Your task to perform on an android device: clear history in the chrome app Image 0: 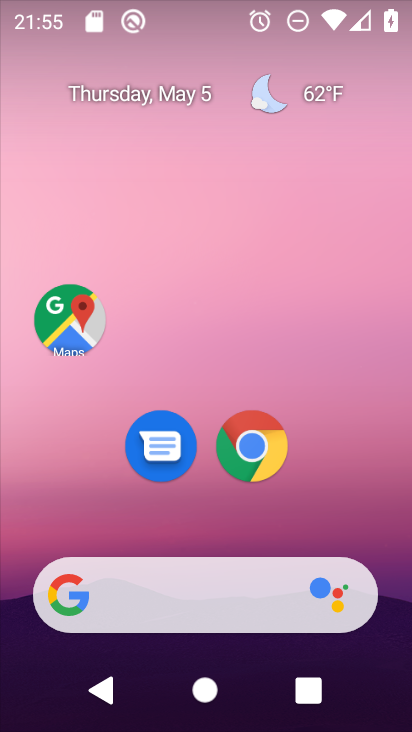
Step 0: drag from (264, 641) to (291, 173)
Your task to perform on an android device: clear history in the chrome app Image 1: 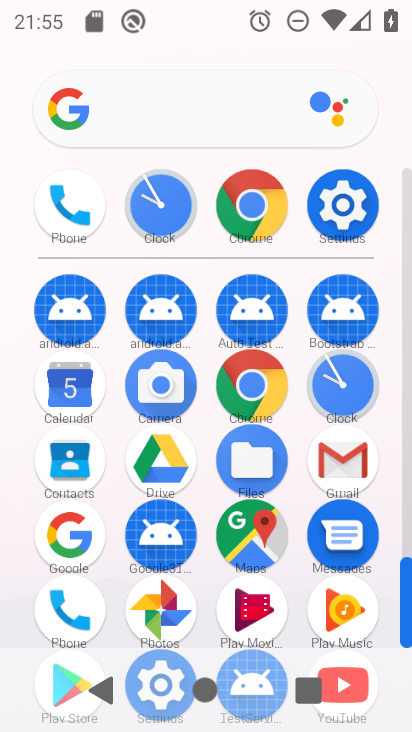
Step 1: click (255, 200)
Your task to perform on an android device: clear history in the chrome app Image 2: 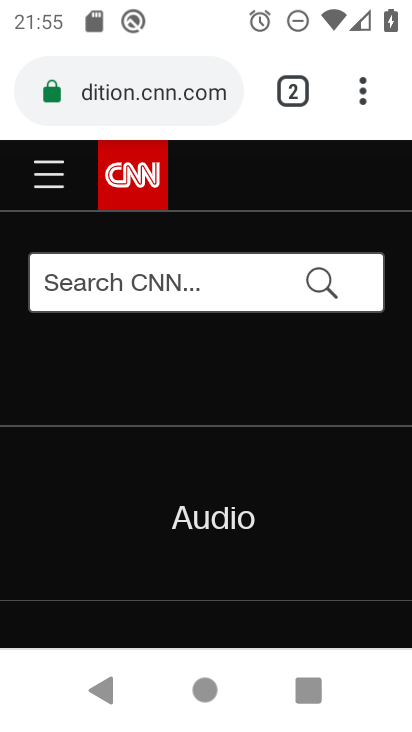
Step 2: click (355, 111)
Your task to perform on an android device: clear history in the chrome app Image 3: 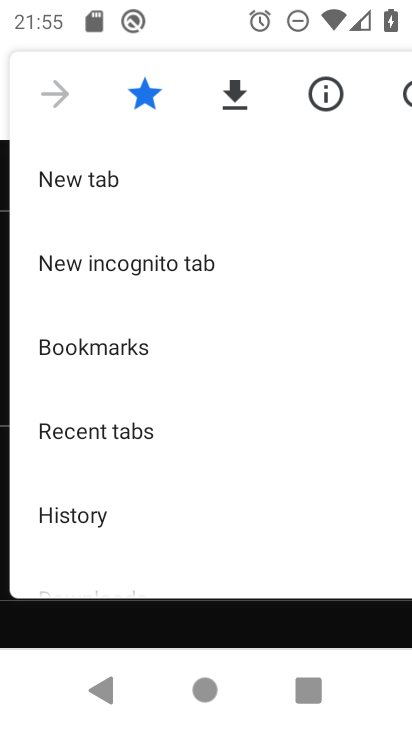
Step 3: click (103, 525)
Your task to perform on an android device: clear history in the chrome app Image 4: 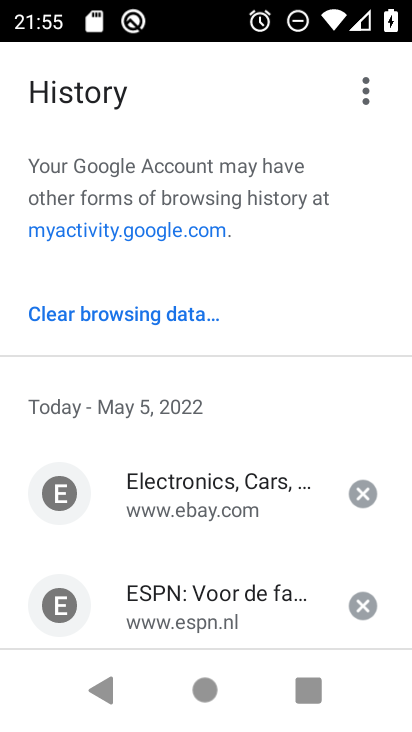
Step 4: click (44, 309)
Your task to perform on an android device: clear history in the chrome app Image 5: 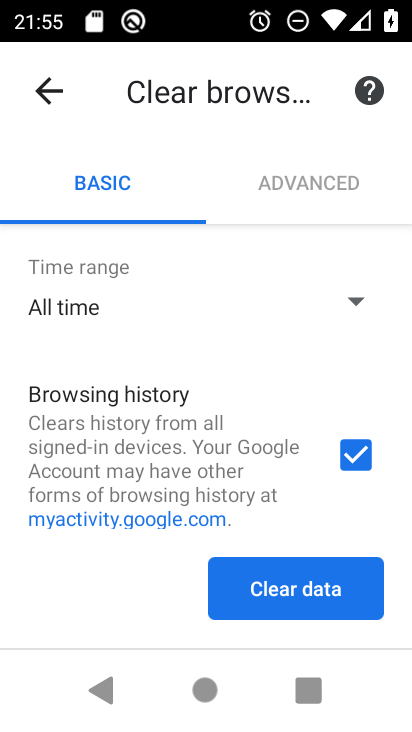
Step 5: click (237, 577)
Your task to perform on an android device: clear history in the chrome app Image 6: 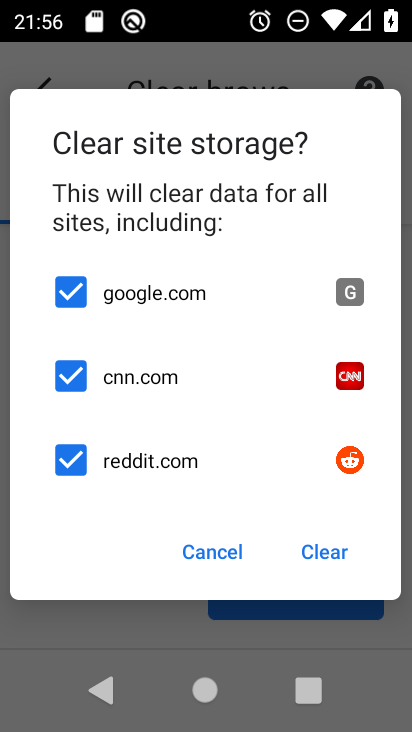
Step 6: task complete